Your task to perform on an android device: Clear all items from cart on costco.com. Add usb-b to the cart on costco.com Image 0: 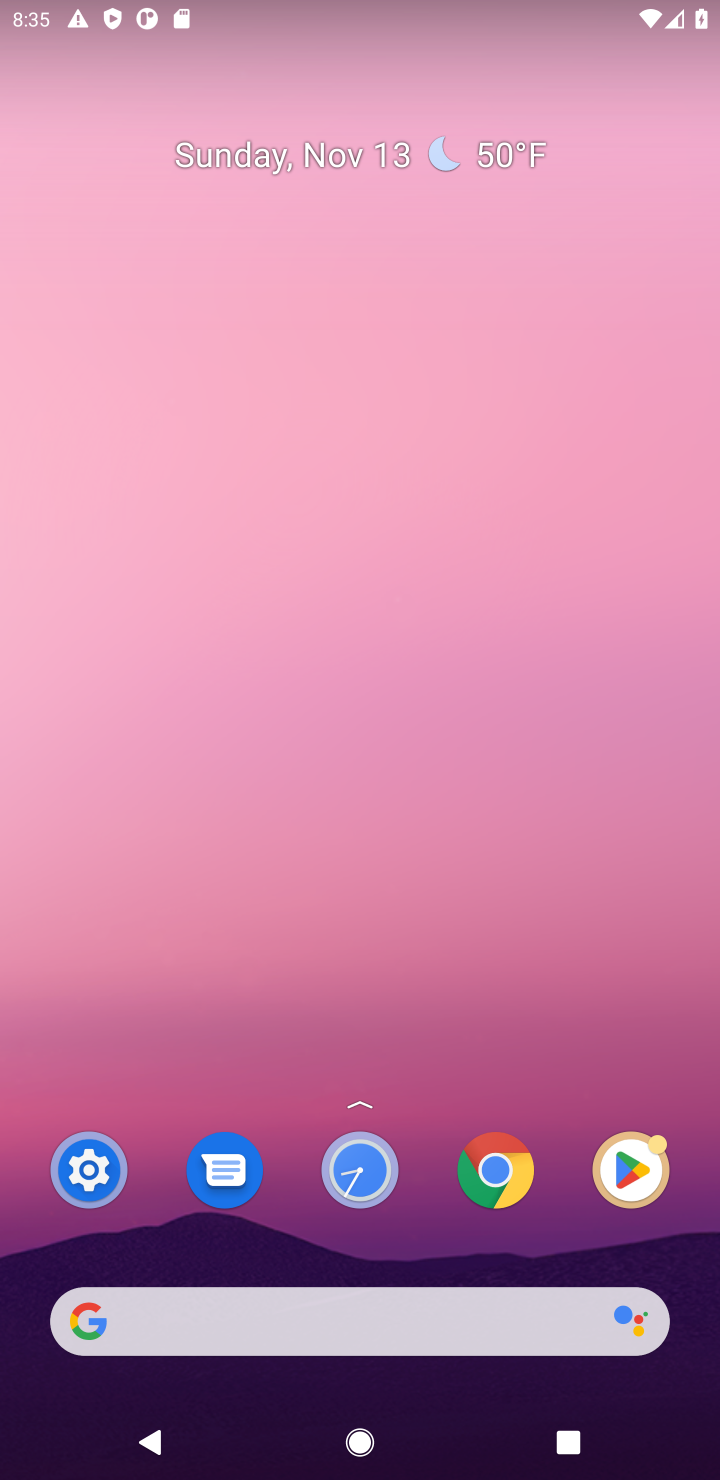
Step 0: click (319, 1338)
Your task to perform on an android device: Clear all items from cart on costco.com. Add usb-b to the cart on costco.com Image 1: 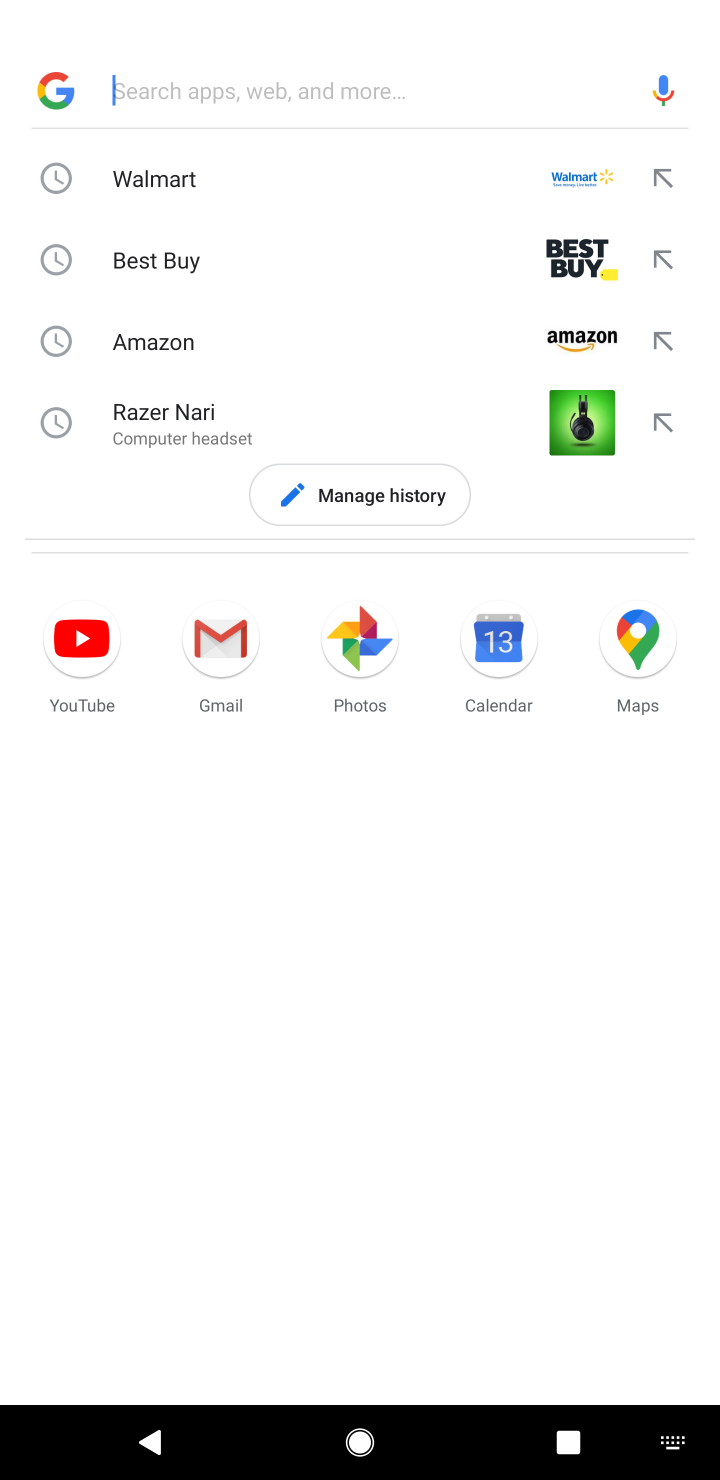
Step 1: type "costco.com"
Your task to perform on an android device: Clear all items from cart on costco.com. Add usb-b to the cart on costco.com Image 2: 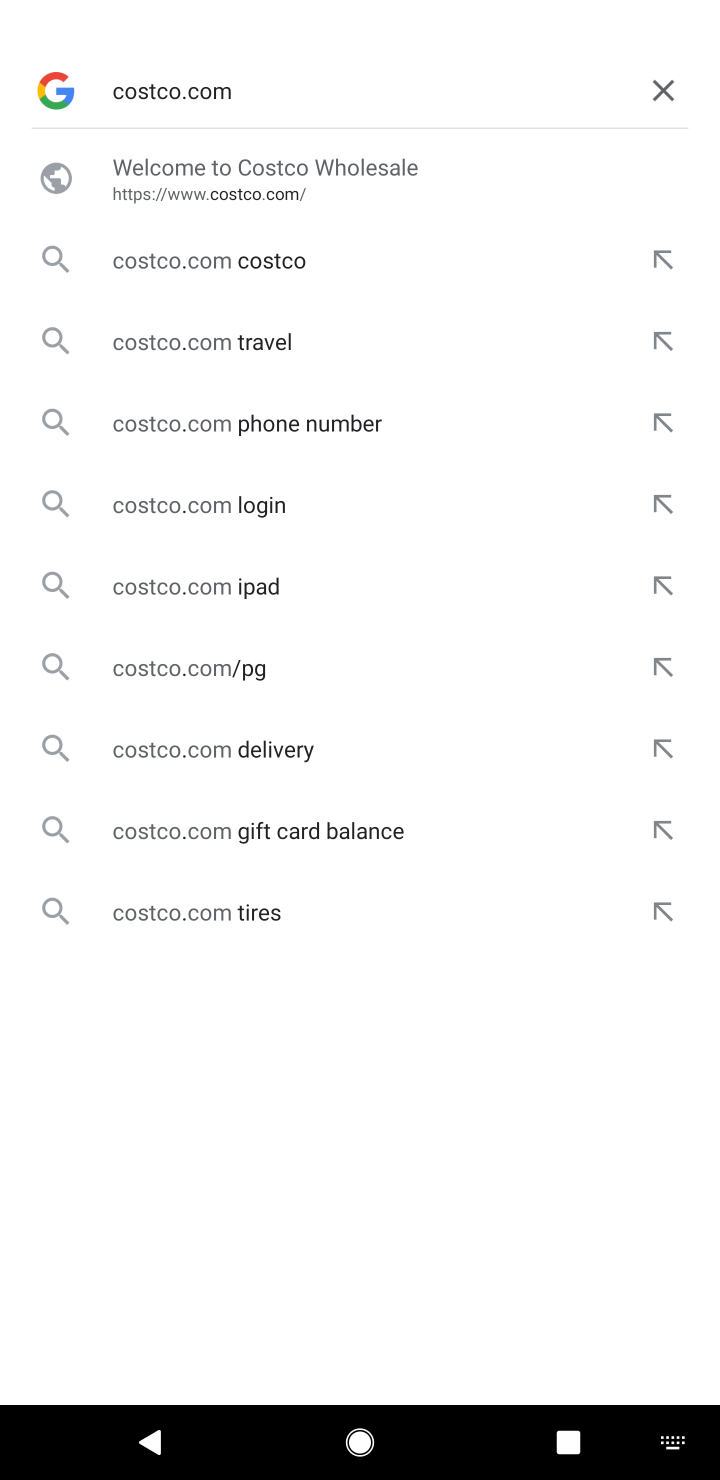
Step 2: click (314, 211)
Your task to perform on an android device: Clear all items from cart on costco.com. Add usb-b to the cart on costco.com Image 3: 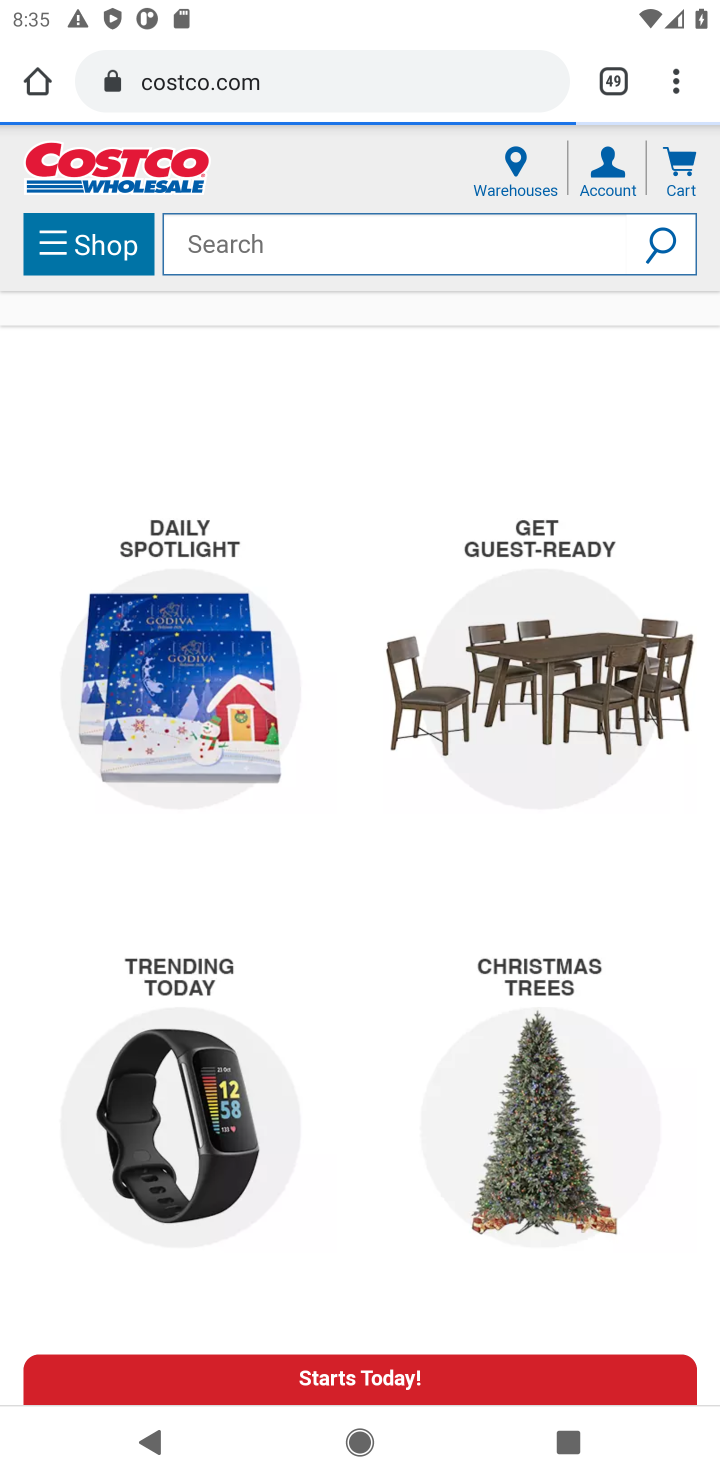
Step 3: task complete